Your task to perform on an android device: Open Chrome and go to the settings page Image 0: 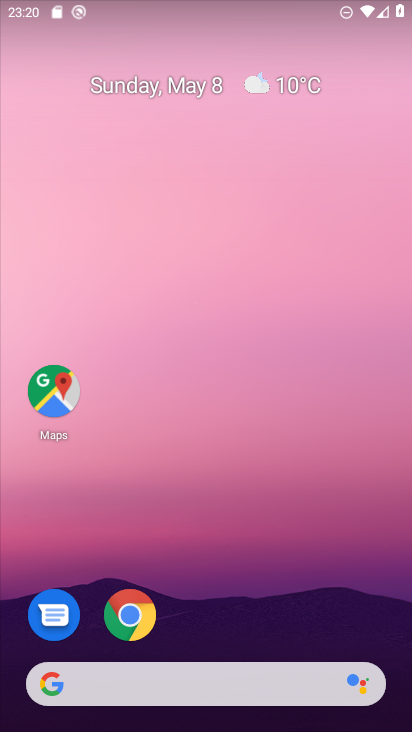
Step 0: drag from (338, 607) to (329, 82)
Your task to perform on an android device: Open Chrome and go to the settings page Image 1: 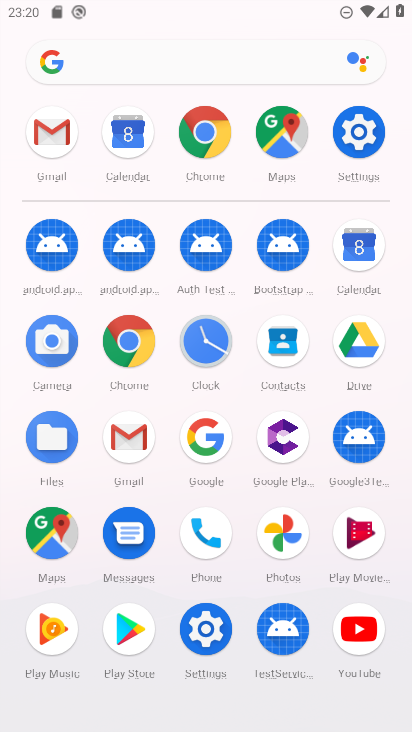
Step 1: click (126, 335)
Your task to perform on an android device: Open Chrome and go to the settings page Image 2: 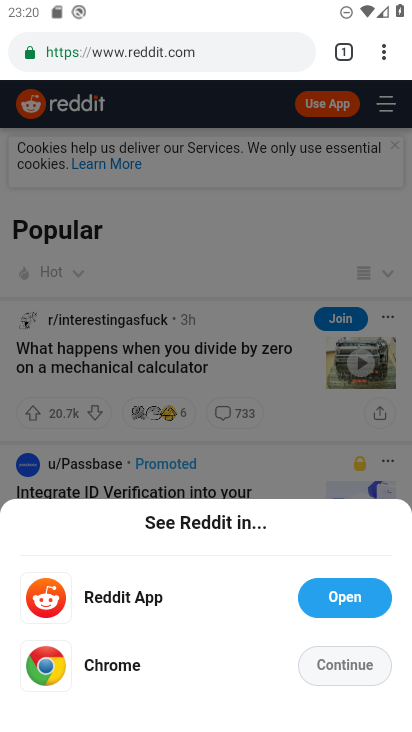
Step 2: task complete